Your task to perform on an android device: change the clock style Image 0: 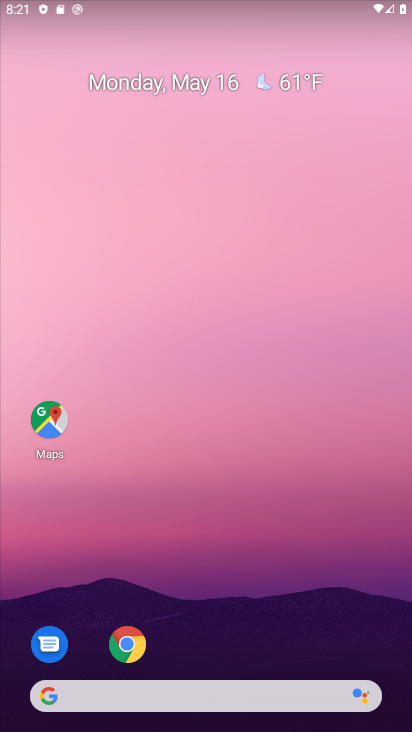
Step 0: drag from (214, 630) to (205, 100)
Your task to perform on an android device: change the clock style Image 1: 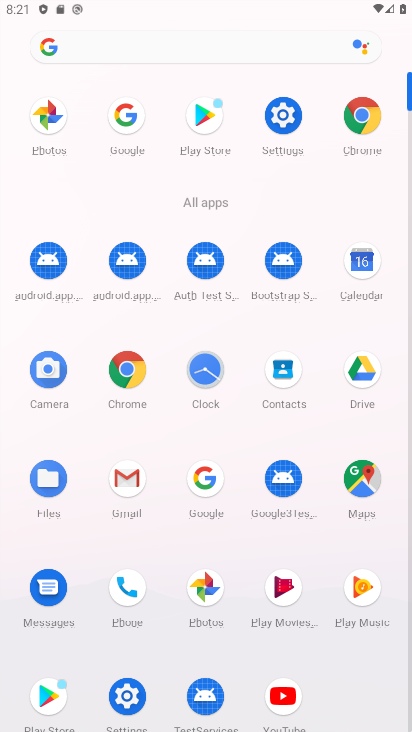
Step 1: click (210, 365)
Your task to perform on an android device: change the clock style Image 2: 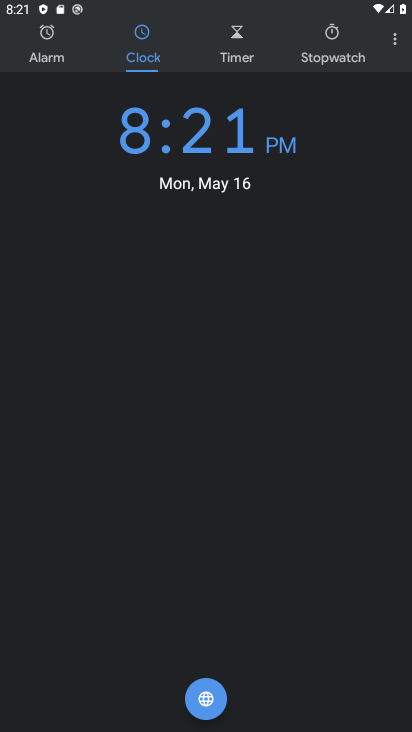
Step 2: click (391, 46)
Your task to perform on an android device: change the clock style Image 3: 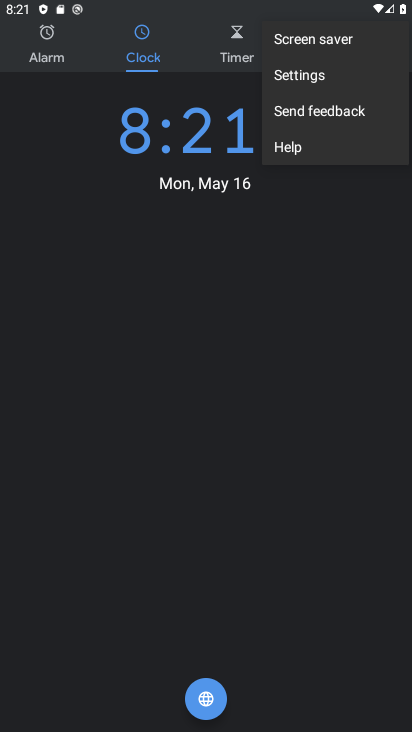
Step 3: click (312, 85)
Your task to perform on an android device: change the clock style Image 4: 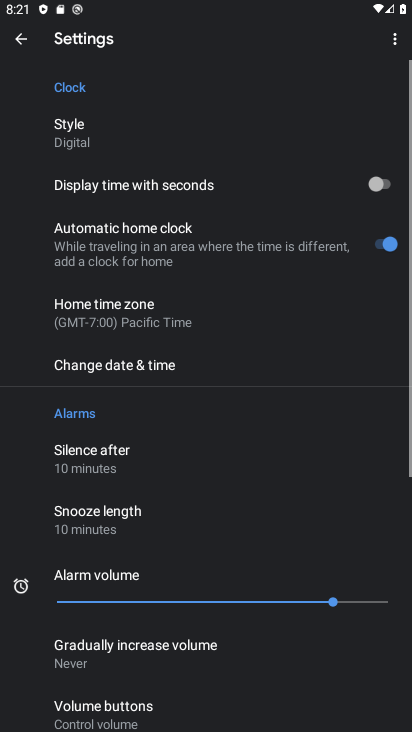
Step 4: click (108, 137)
Your task to perform on an android device: change the clock style Image 5: 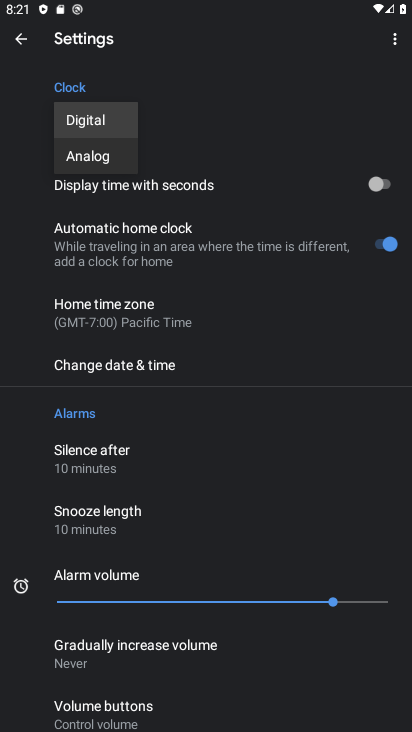
Step 5: click (106, 157)
Your task to perform on an android device: change the clock style Image 6: 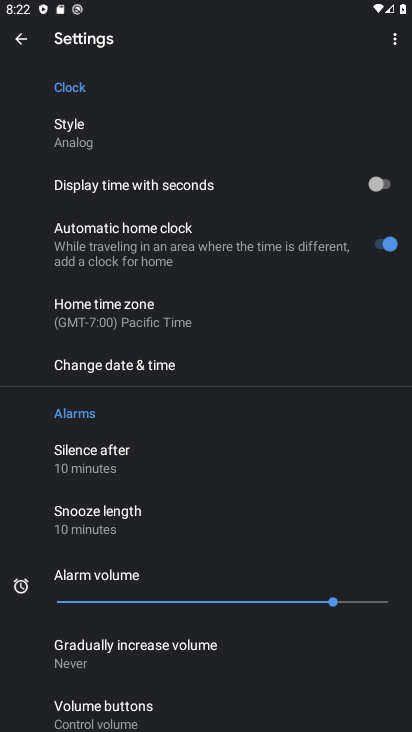
Step 6: task complete